Your task to perform on an android device: add a contact in the contacts app Image 0: 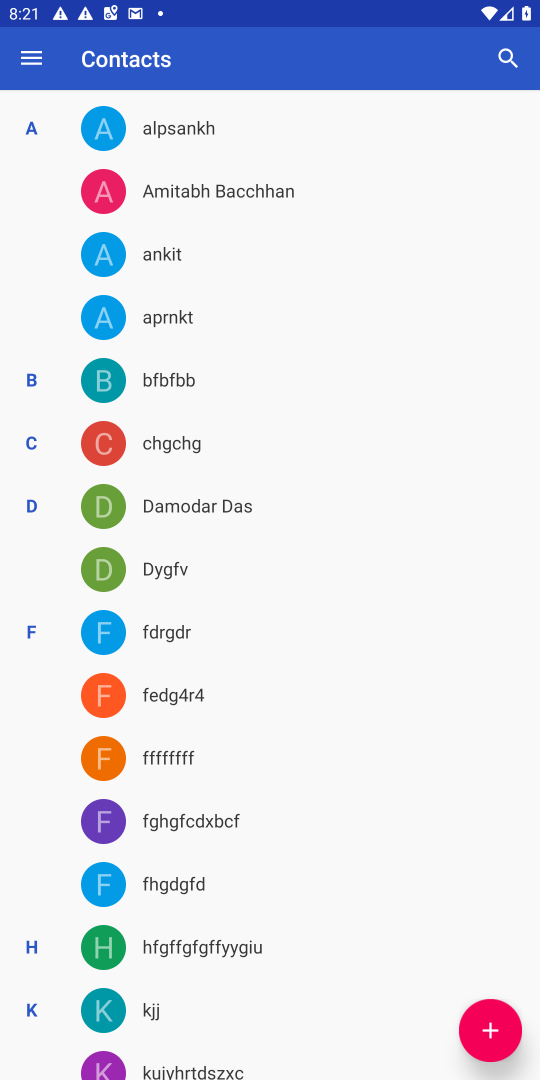
Step 0: task complete